Your task to perform on an android device: Go to sound settings Image 0: 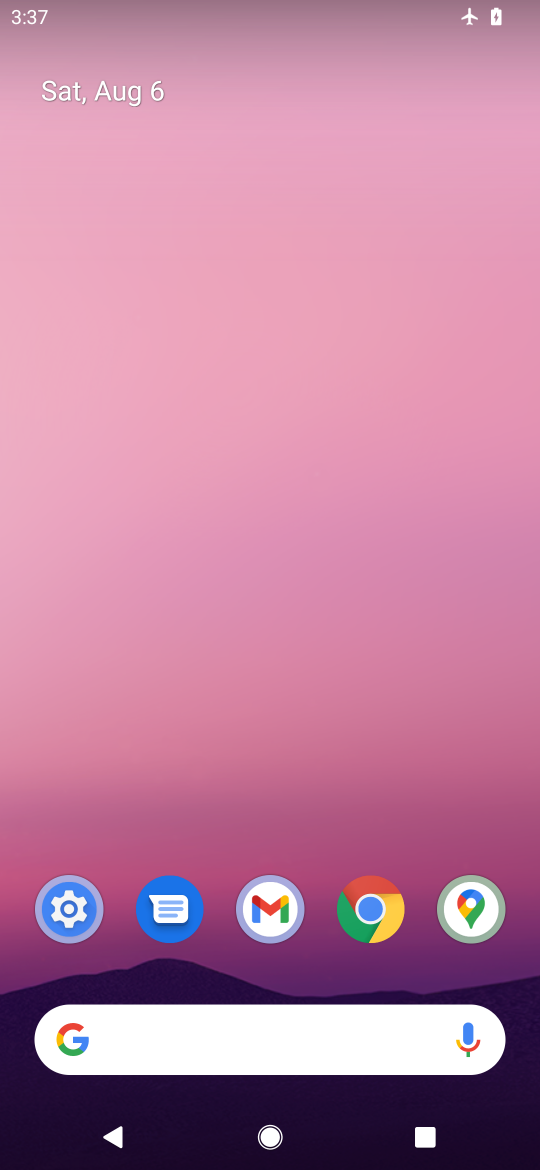
Step 0: click (84, 905)
Your task to perform on an android device: Go to sound settings Image 1: 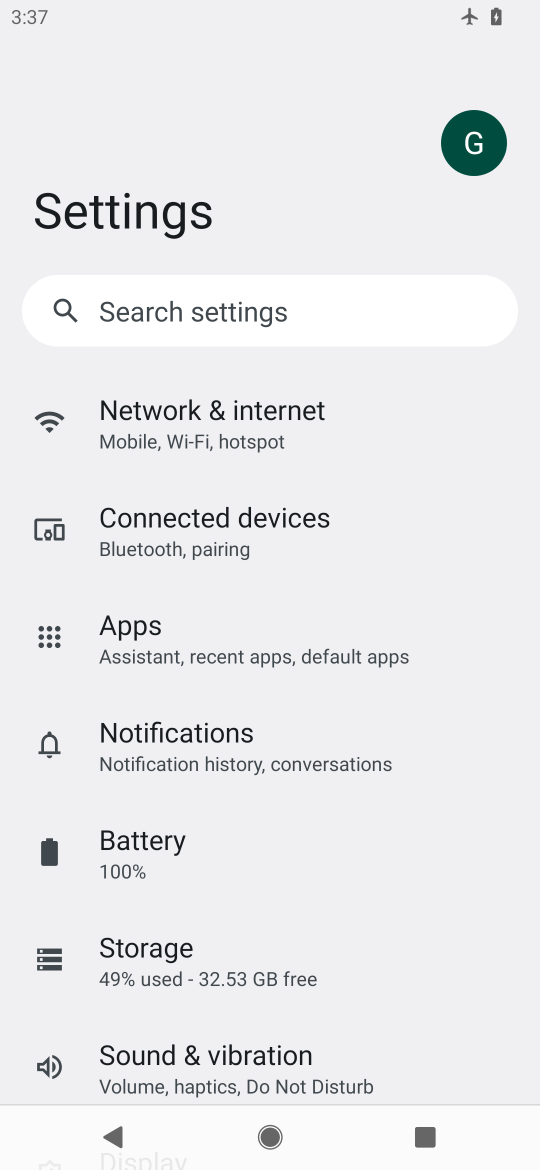
Step 1: drag from (252, 962) to (421, 289)
Your task to perform on an android device: Go to sound settings Image 2: 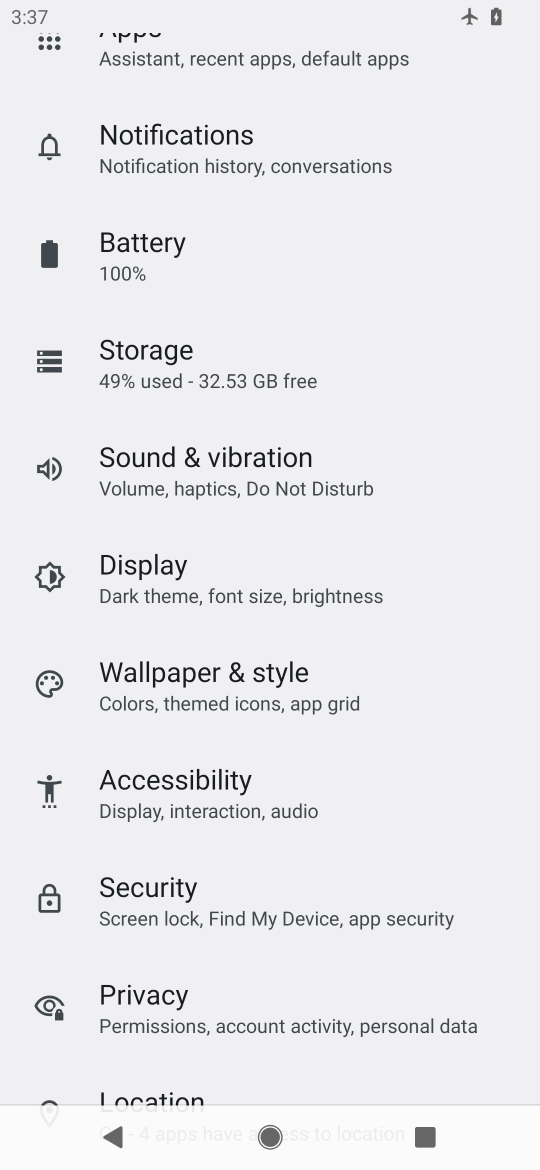
Step 2: click (216, 470)
Your task to perform on an android device: Go to sound settings Image 3: 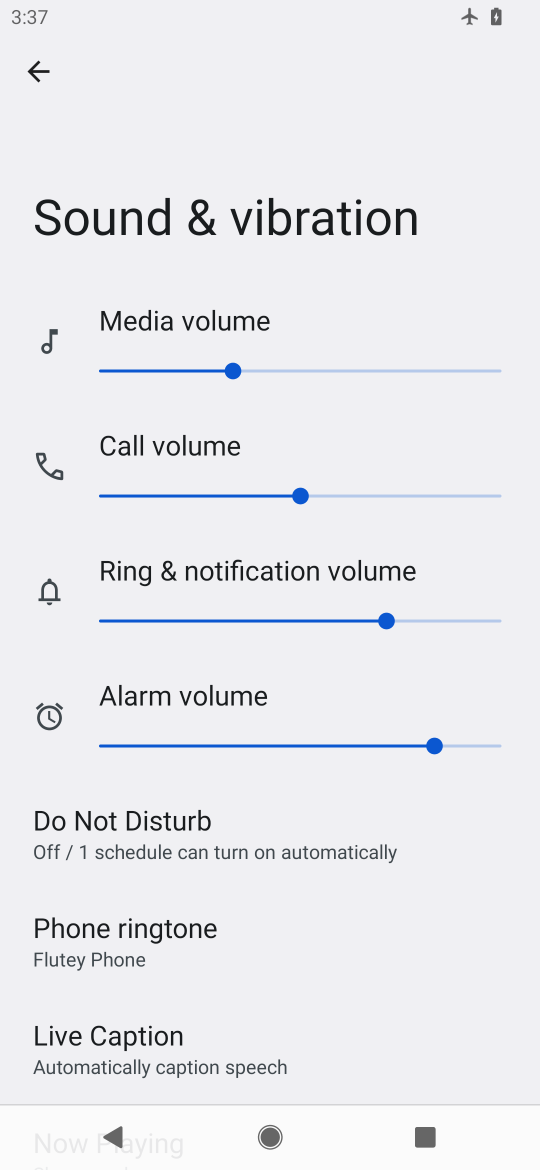
Step 3: task complete